Your task to perform on an android device: Open settings on Google Maps Image 0: 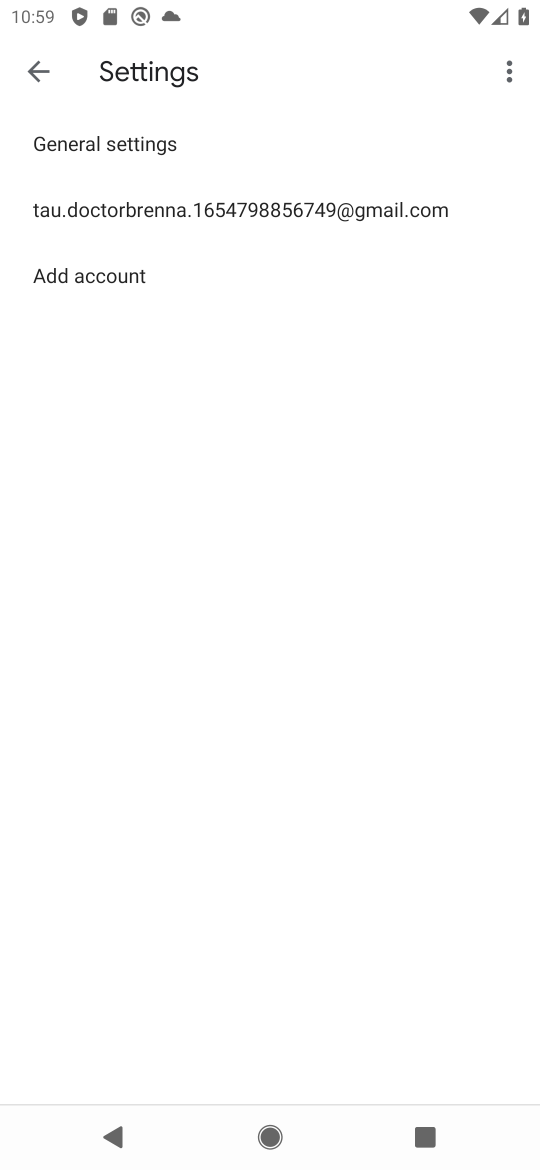
Step 0: press home button
Your task to perform on an android device: Open settings on Google Maps Image 1: 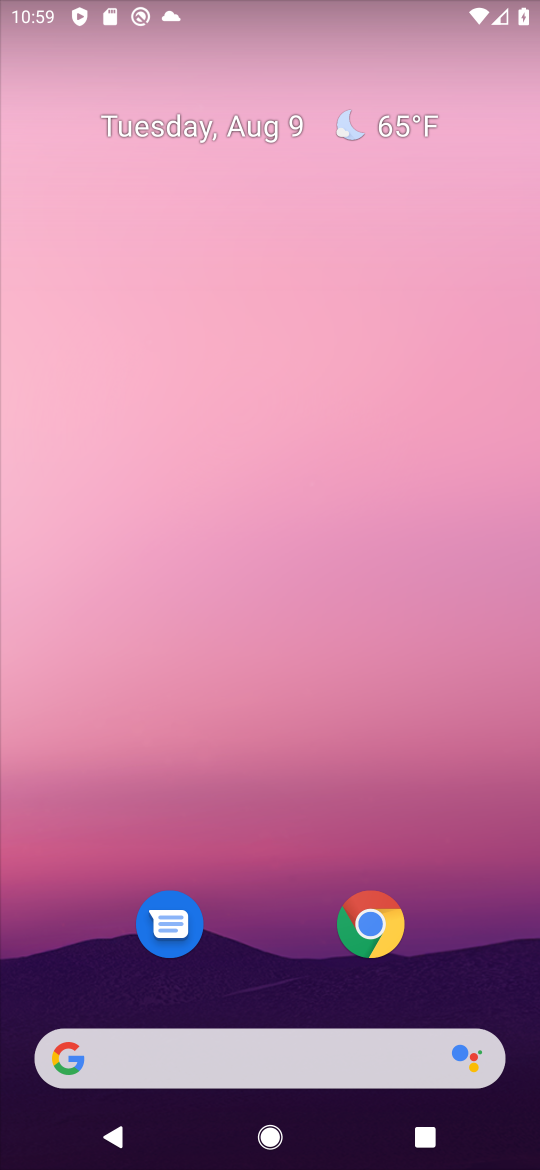
Step 1: drag from (256, 1003) to (398, 87)
Your task to perform on an android device: Open settings on Google Maps Image 2: 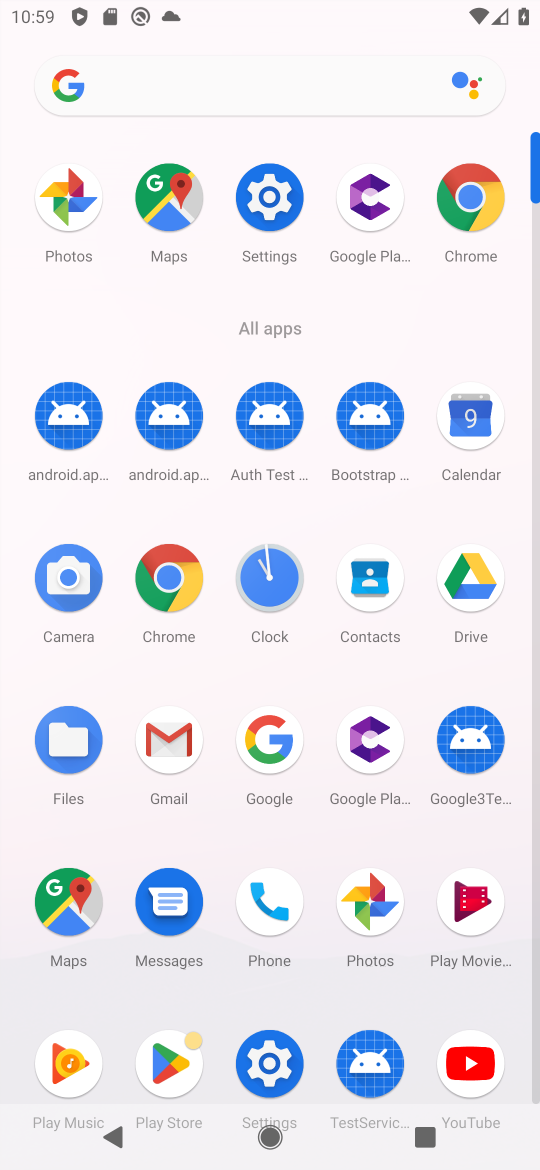
Step 2: click (72, 903)
Your task to perform on an android device: Open settings on Google Maps Image 3: 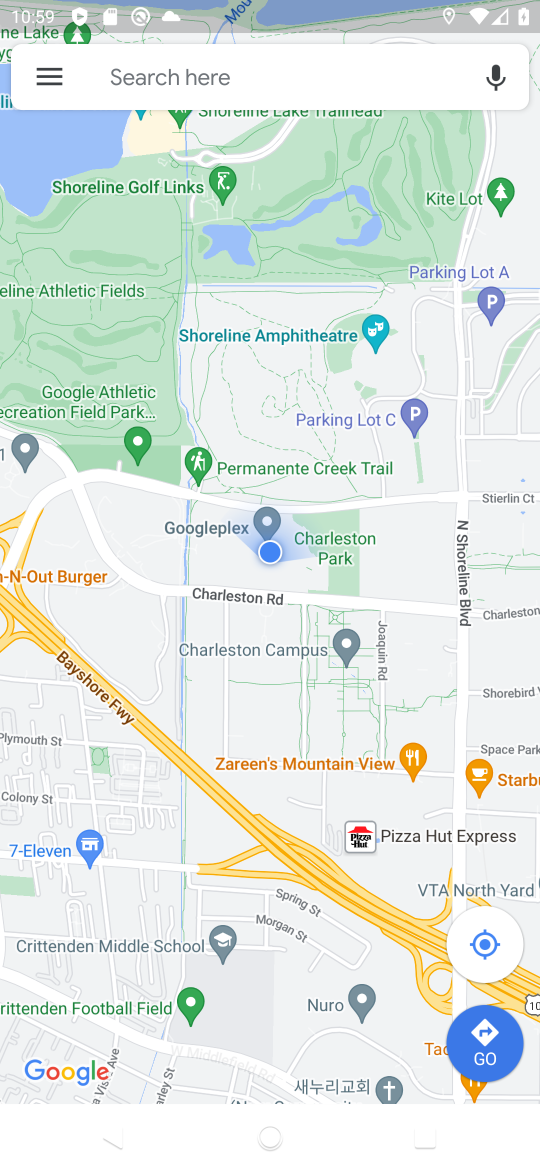
Step 3: click (52, 74)
Your task to perform on an android device: Open settings on Google Maps Image 4: 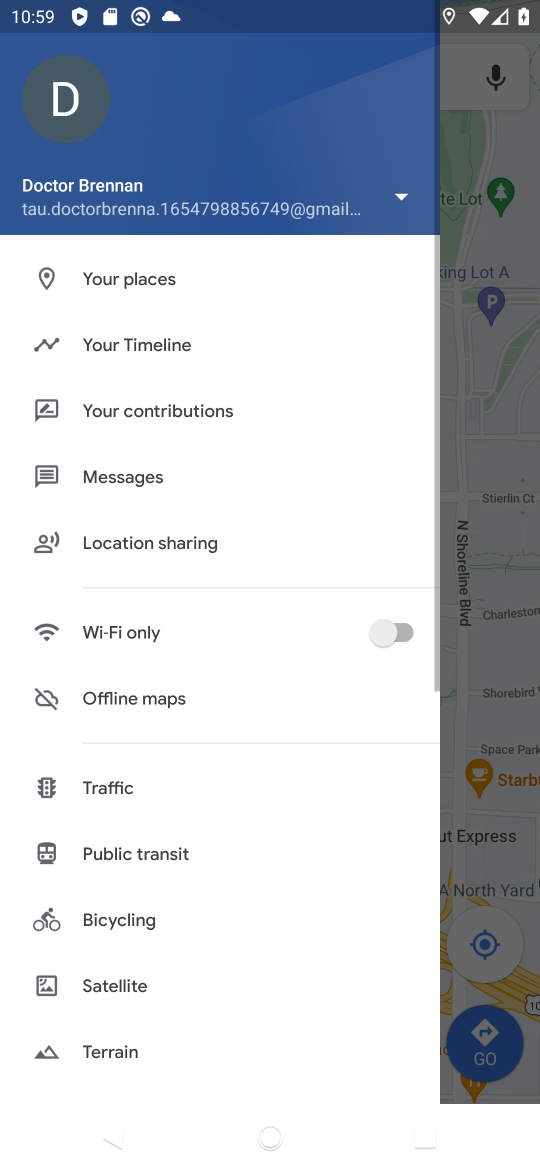
Step 4: drag from (170, 991) to (321, 320)
Your task to perform on an android device: Open settings on Google Maps Image 5: 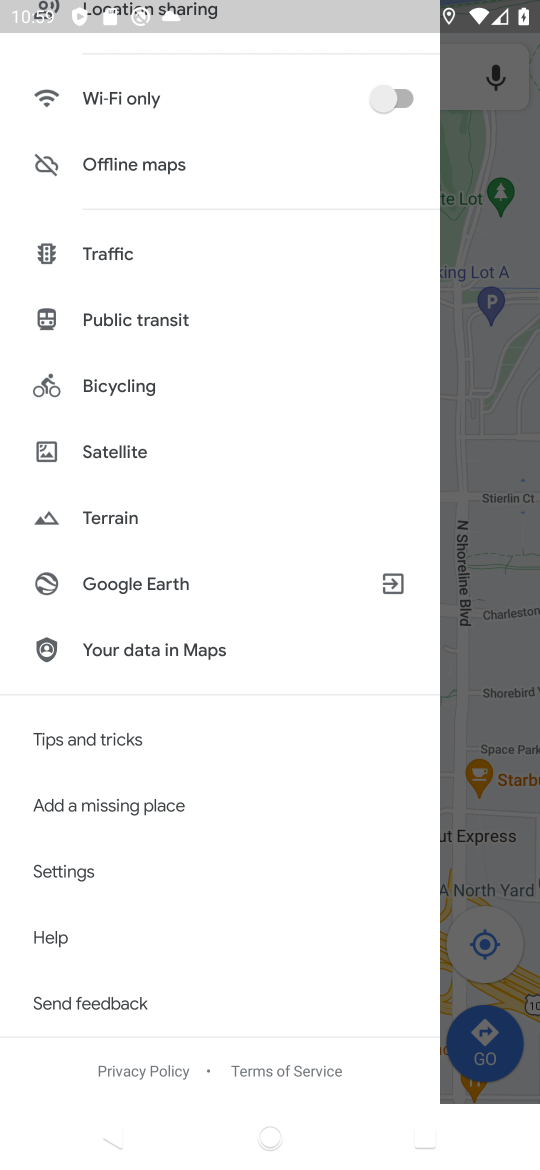
Step 5: click (85, 858)
Your task to perform on an android device: Open settings on Google Maps Image 6: 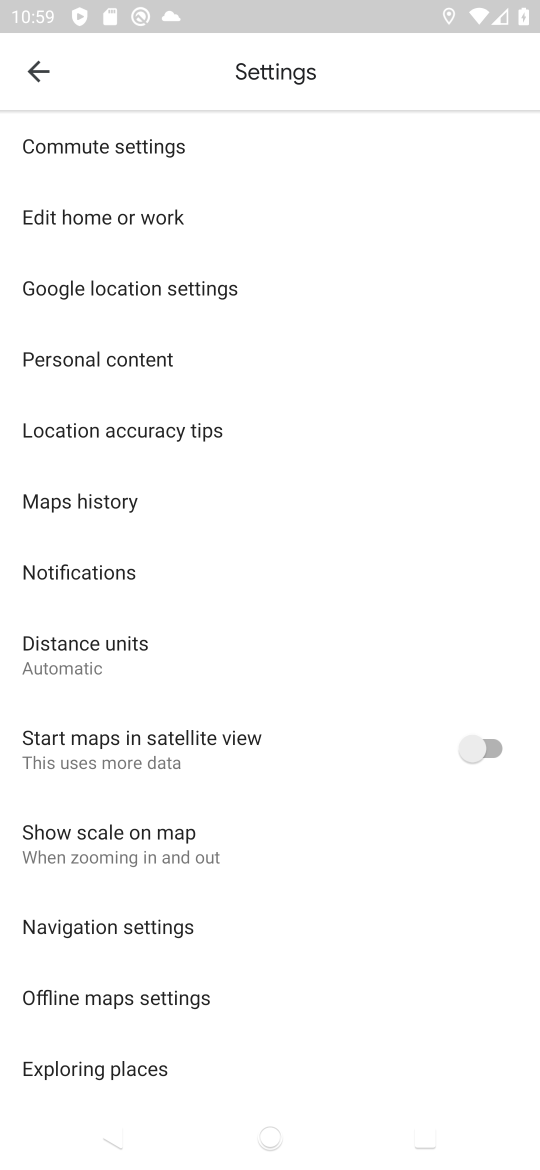
Step 6: task complete